Your task to perform on an android device: add a label to a message in the gmail app Image 0: 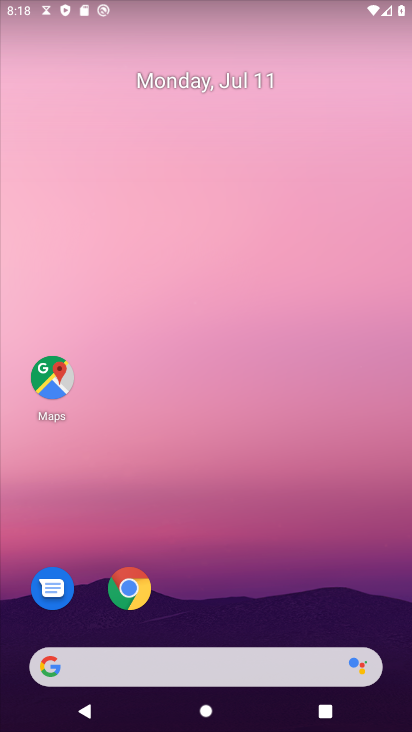
Step 0: press home button
Your task to perform on an android device: add a label to a message in the gmail app Image 1: 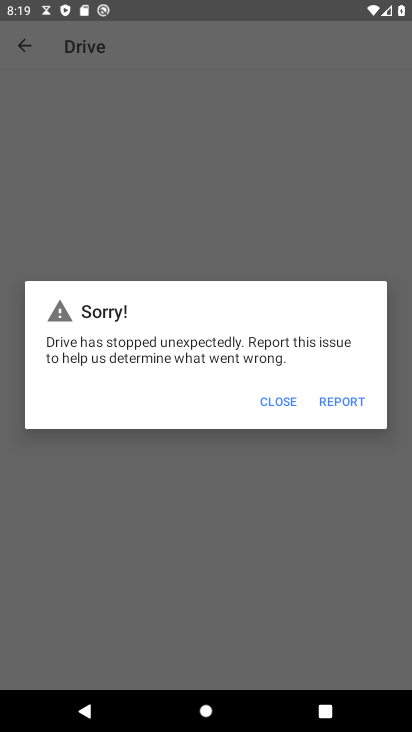
Step 1: press home button
Your task to perform on an android device: add a label to a message in the gmail app Image 2: 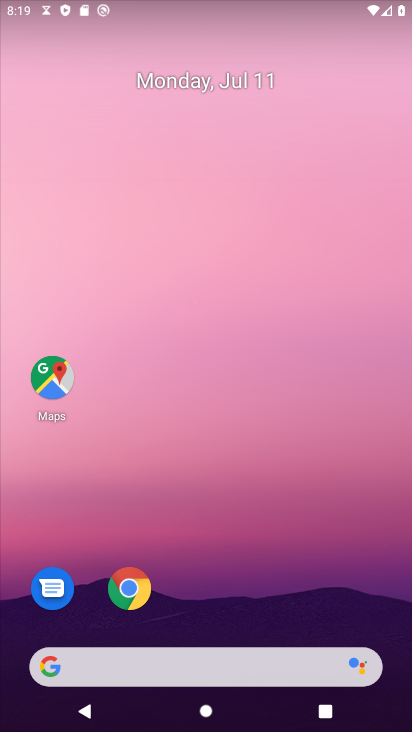
Step 2: drag from (269, 612) to (276, 0)
Your task to perform on an android device: add a label to a message in the gmail app Image 3: 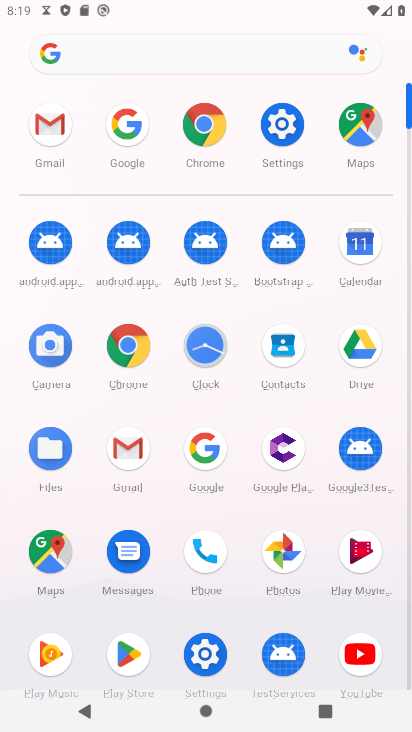
Step 3: click (36, 142)
Your task to perform on an android device: add a label to a message in the gmail app Image 4: 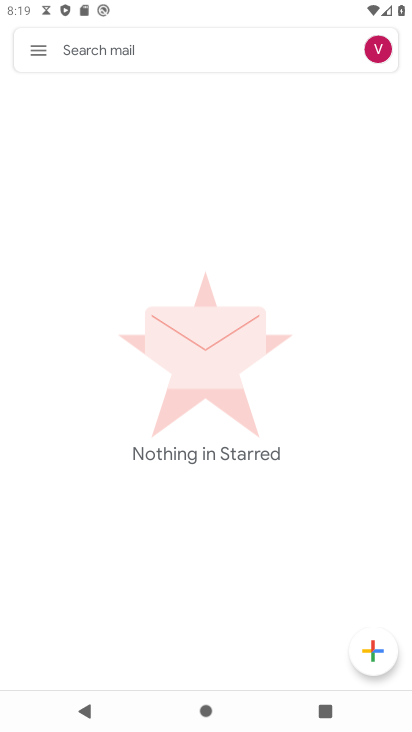
Step 4: click (27, 64)
Your task to perform on an android device: add a label to a message in the gmail app Image 5: 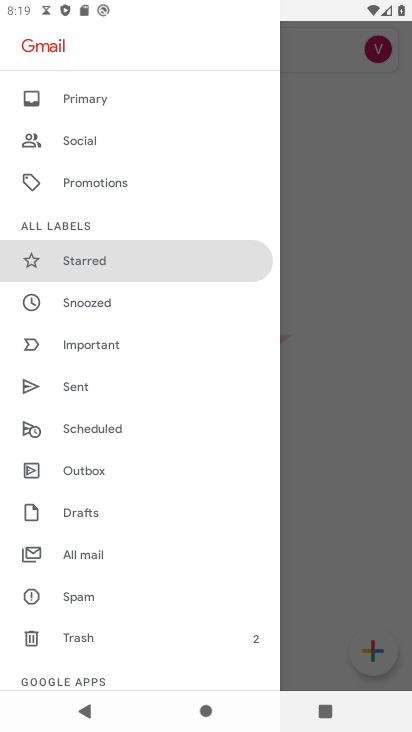
Step 5: click (74, 551)
Your task to perform on an android device: add a label to a message in the gmail app Image 6: 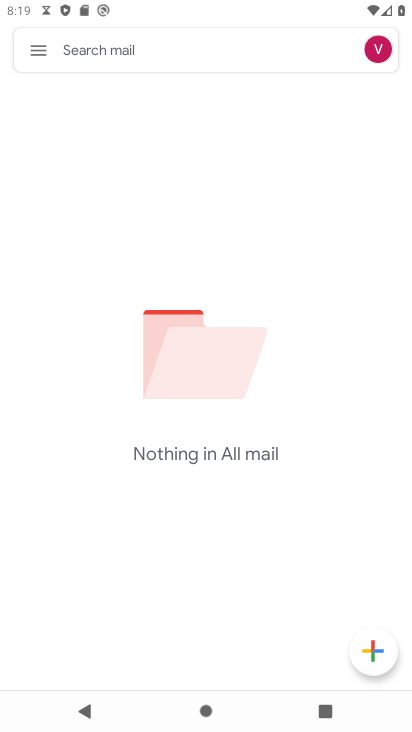
Step 6: task complete